Your task to perform on an android device: Check the settings for the Netflix app Image 0: 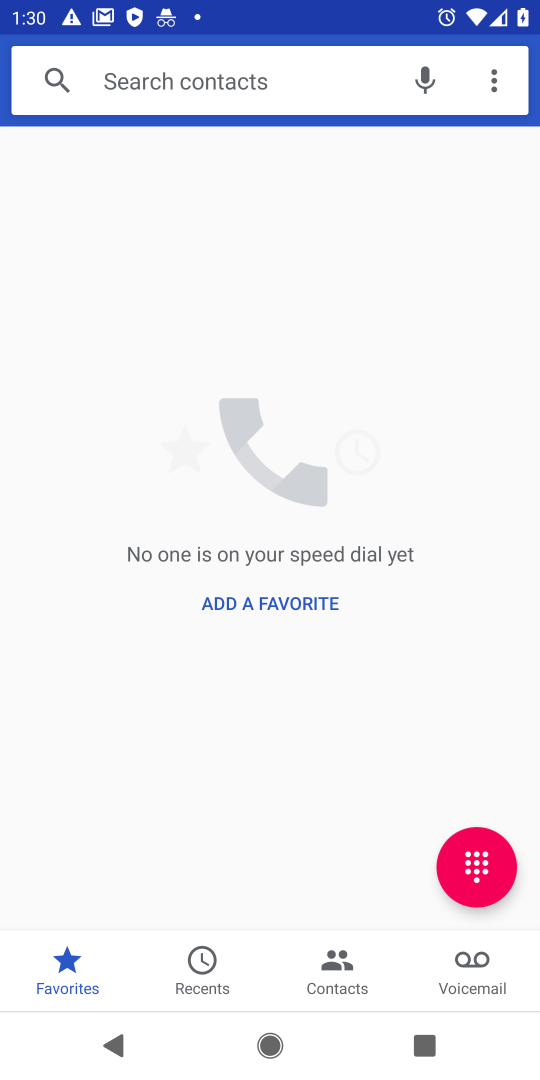
Step 0: press home button
Your task to perform on an android device: Check the settings for the Netflix app Image 1: 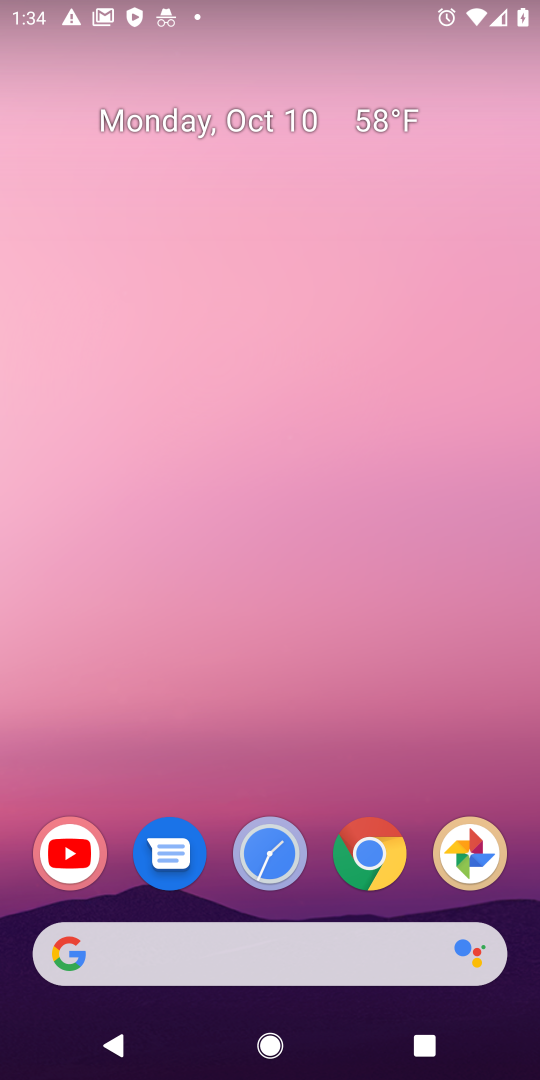
Step 1: task complete